Your task to perform on an android device: change notification settings in the gmail app Image 0: 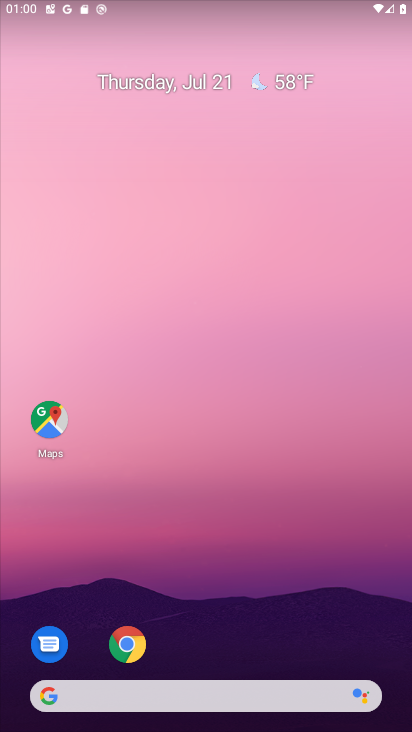
Step 0: drag from (244, 637) to (165, 6)
Your task to perform on an android device: change notification settings in the gmail app Image 1: 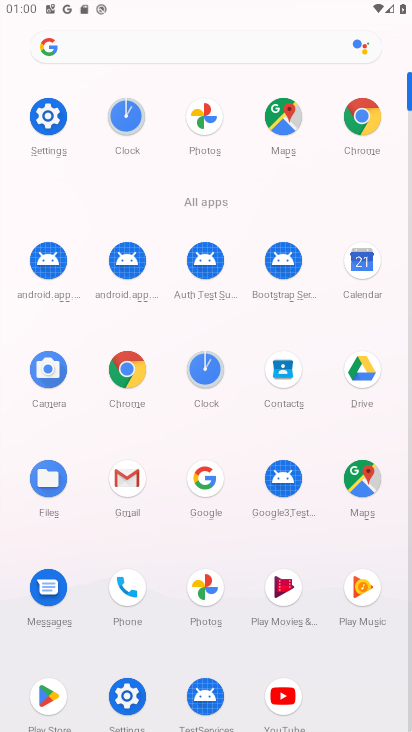
Step 1: click (134, 482)
Your task to perform on an android device: change notification settings in the gmail app Image 2: 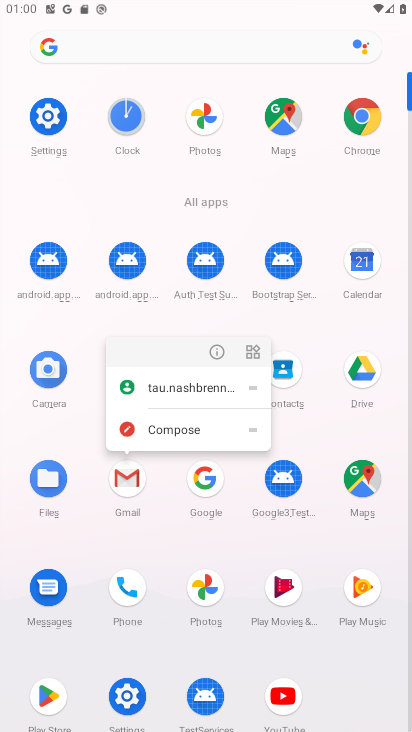
Step 2: click (218, 350)
Your task to perform on an android device: change notification settings in the gmail app Image 3: 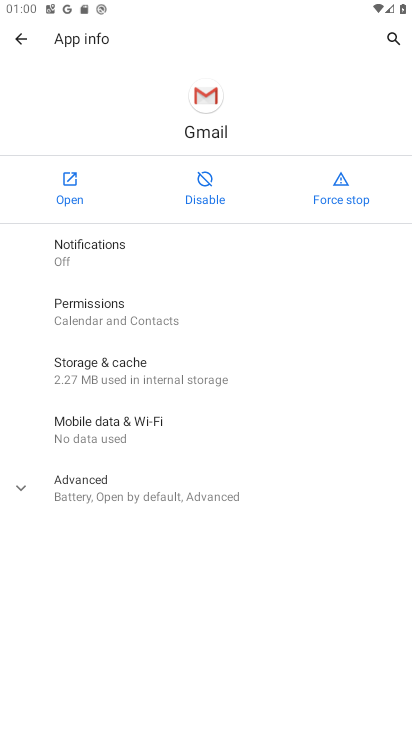
Step 3: click (185, 250)
Your task to perform on an android device: change notification settings in the gmail app Image 4: 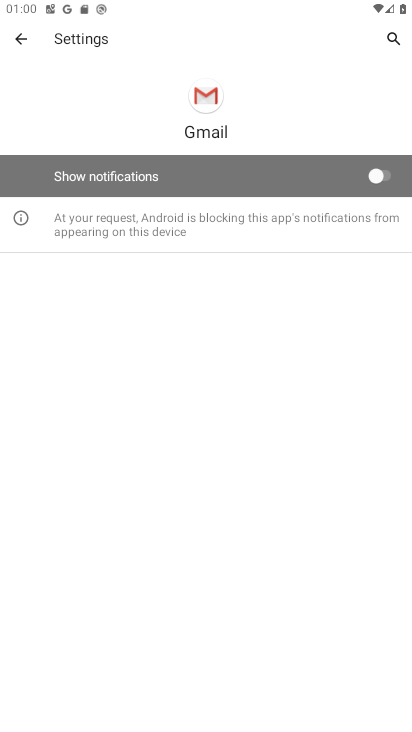
Step 4: click (376, 169)
Your task to perform on an android device: change notification settings in the gmail app Image 5: 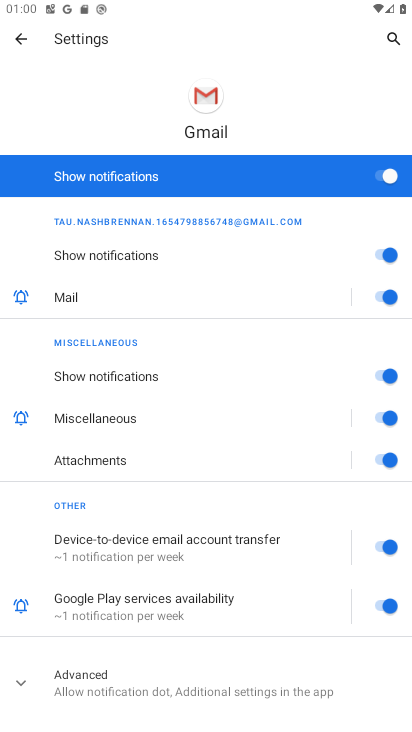
Step 5: task complete